Your task to perform on an android device: remove spam from my inbox in the gmail app Image 0: 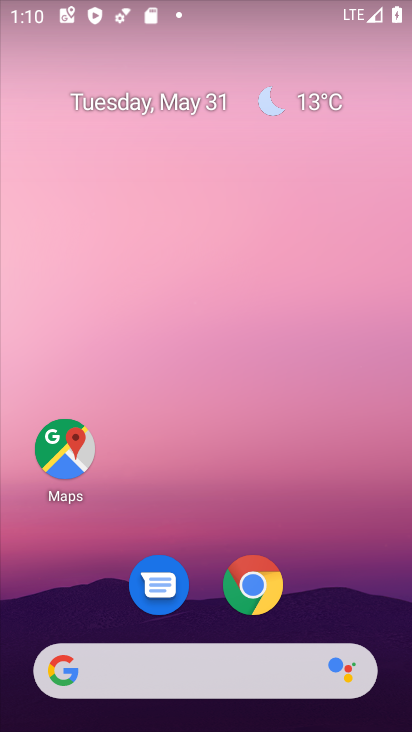
Step 0: drag from (316, 587) to (304, 23)
Your task to perform on an android device: remove spam from my inbox in the gmail app Image 1: 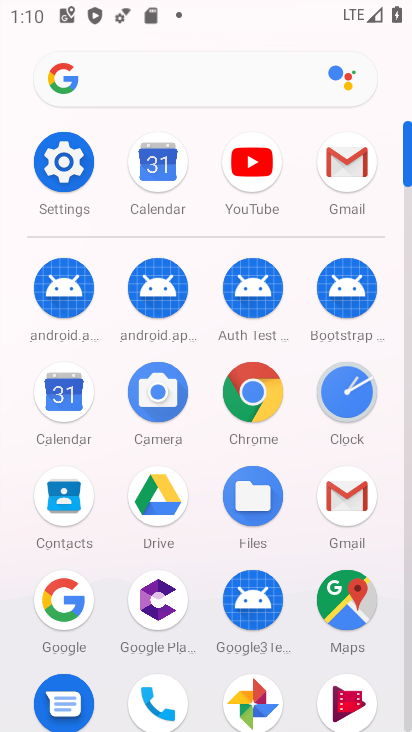
Step 1: click (350, 170)
Your task to perform on an android device: remove spam from my inbox in the gmail app Image 2: 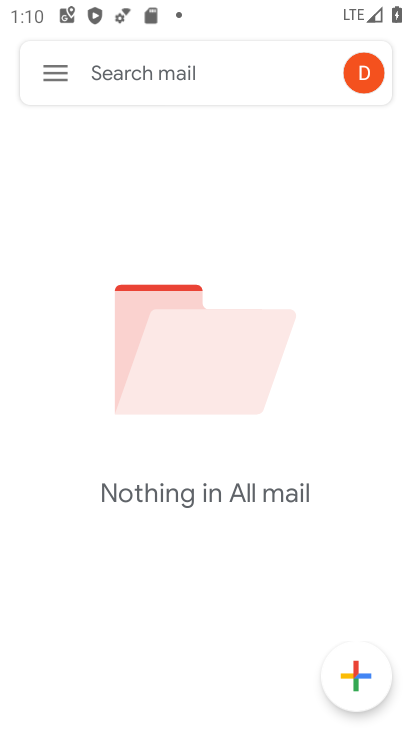
Step 2: click (56, 71)
Your task to perform on an android device: remove spam from my inbox in the gmail app Image 3: 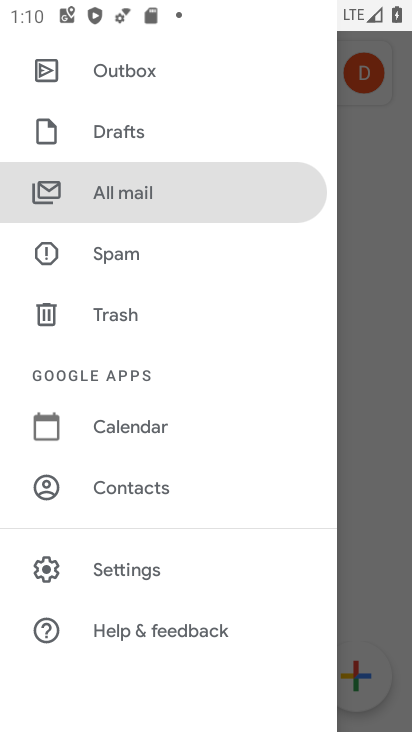
Step 3: click (95, 247)
Your task to perform on an android device: remove spam from my inbox in the gmail app Image 4: 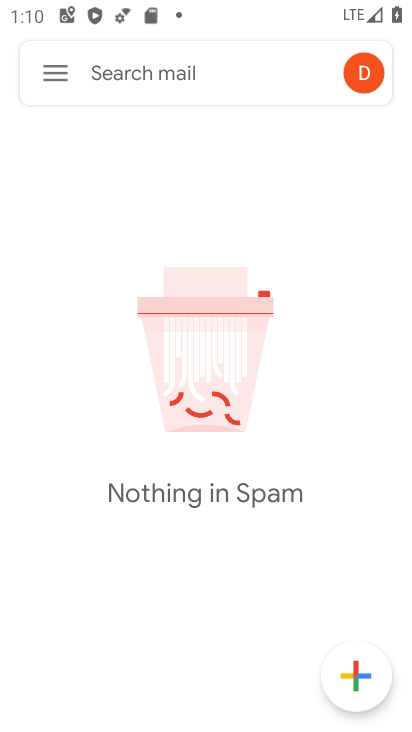
Step 4: task complete